Your task to perform on an android device: empty trash in google photos Image 0: 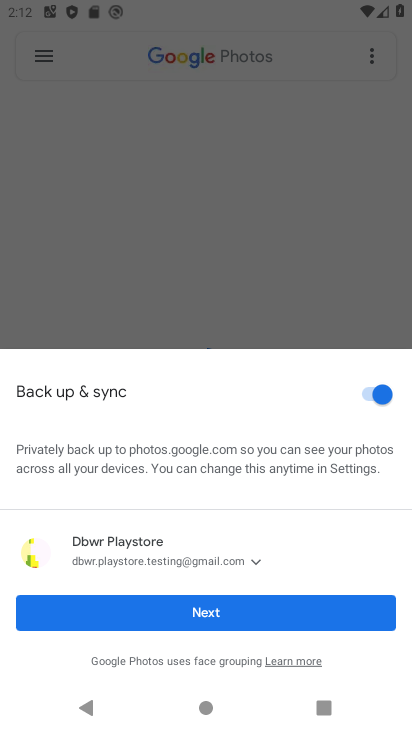
Step 0: click (262, 601)
Your task to perform on an android device: empty trash in google photos Image 1: 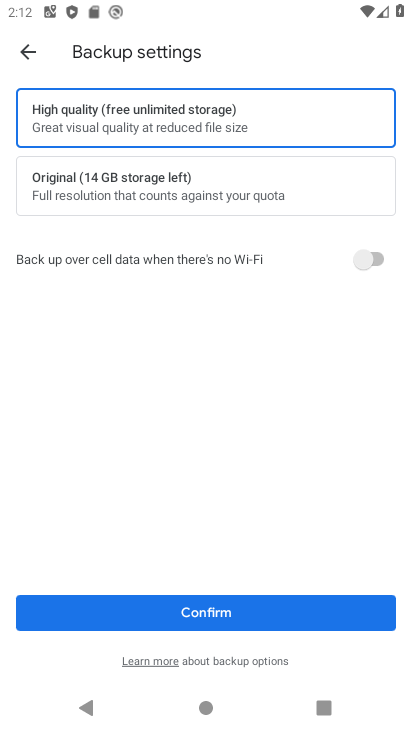
Step 1: press home button
Your task to perform on an android device: empty trash in google photos Image 2: 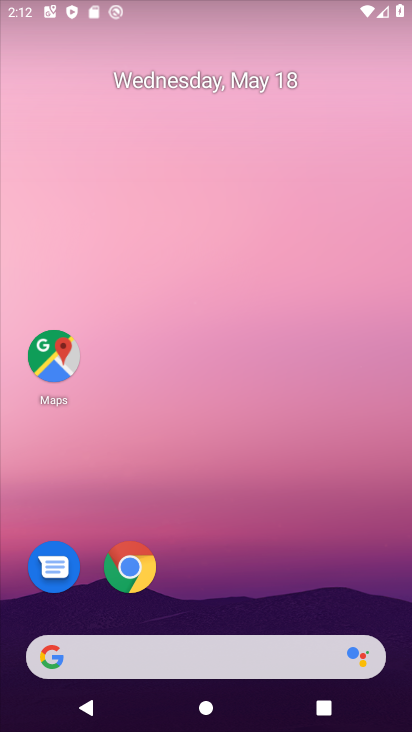
Step 2: drag from (227, 562) to (201, 203)
Your task to perform on an android device: empty trash in google photos Image 3: 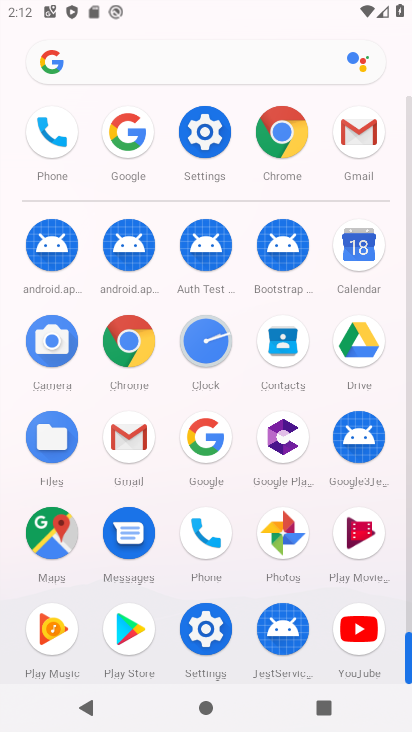
Step 3: click (276, 533)
Your task to perform on an android device: empty trash in google photos Image 4: 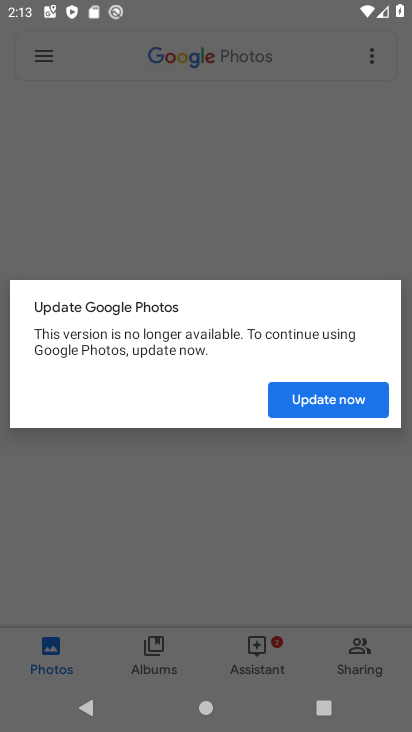
Step 4: click (337, 402)
Your task to perform on an android device: empty trash in google photos Image 5: 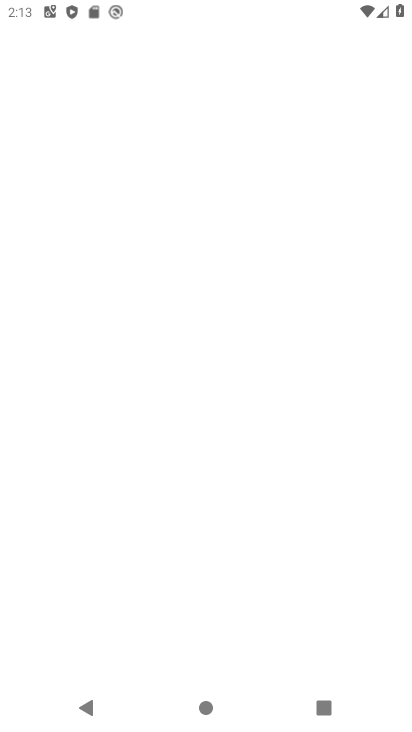
Step 5: press back button
Your task to perform on an android device: empty trash in google photos Image 6: 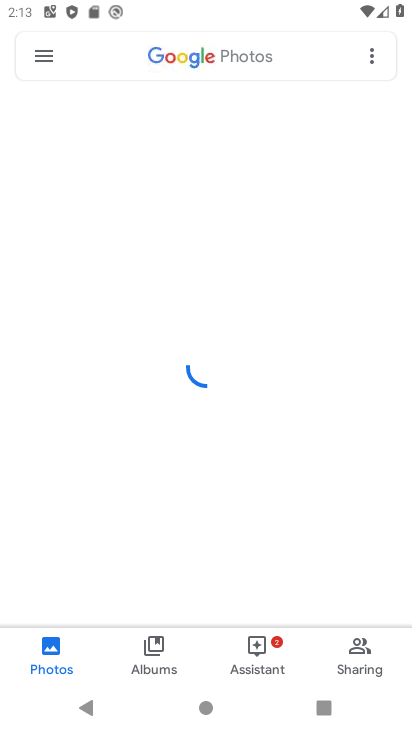
Step 6: click (38, 58)
Your task to perform on an android device: empty trash in google photos Image 7: 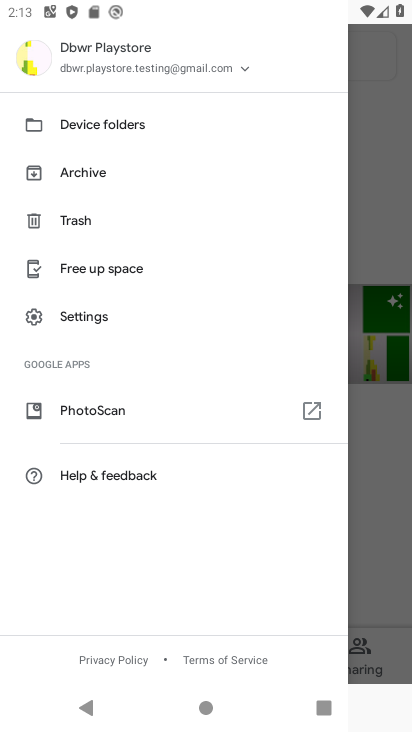
Step 7: click (94, 327)
Your task to perform on an android device: empty trash in google photos Image 8: 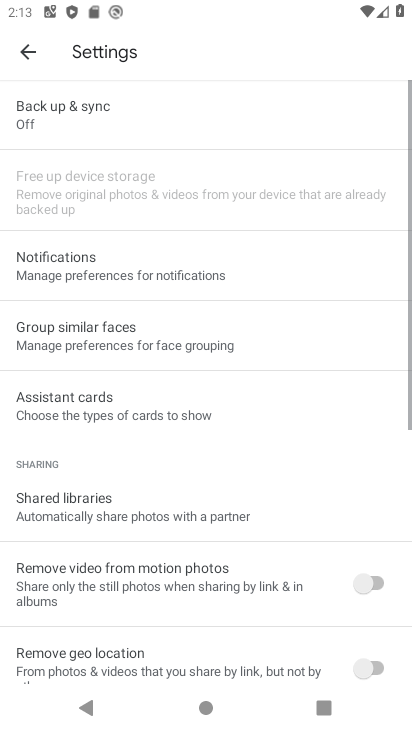
Step 8: click (30, 49)
Your task to perform on an android device: empty trash in google photos Image 9: 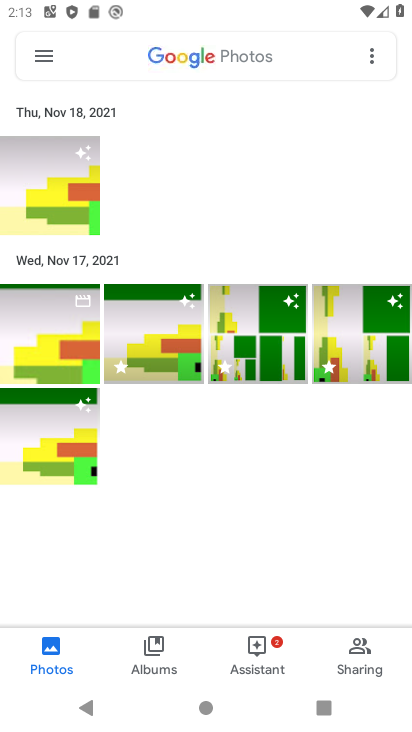
Step 9: click (38, 57)
Your task to perform on an android device: empty trash in google photos Image 10: 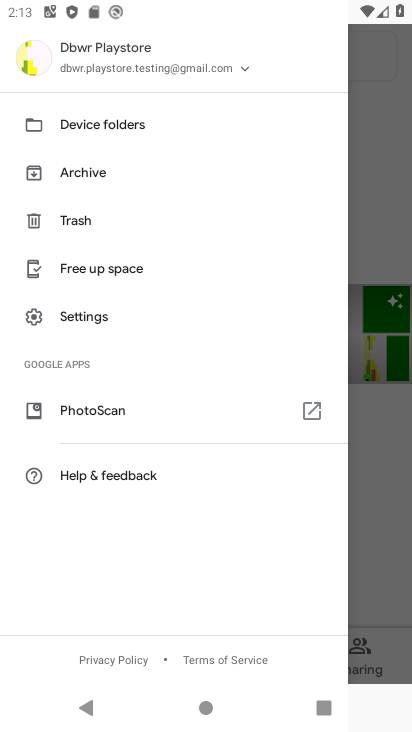
Step 10: click (100, 212)
Your task to perform on an android device: empty trash in google photos Image 11: 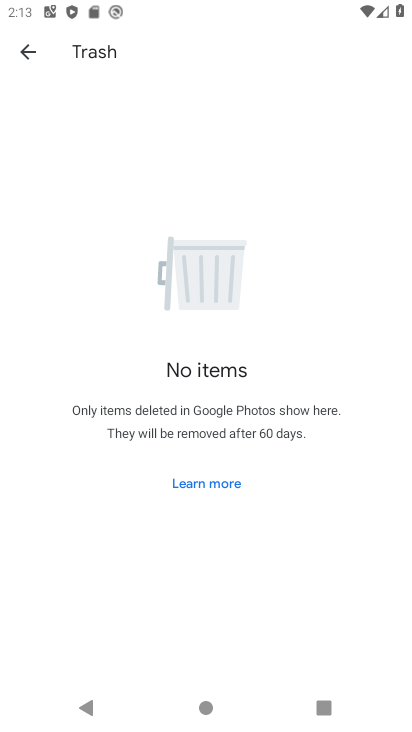
Step 11: task complete